Your task to perform on an android device: choose inbox layout in the gmail app Image 0: 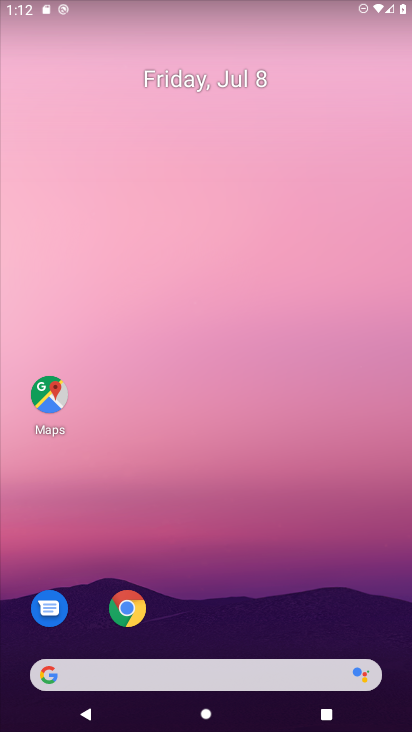
Step 0: drag from (309, 605) to (259, 305)
Your task to perform on an android device: choose inbox layout in the gmail app Image 1: 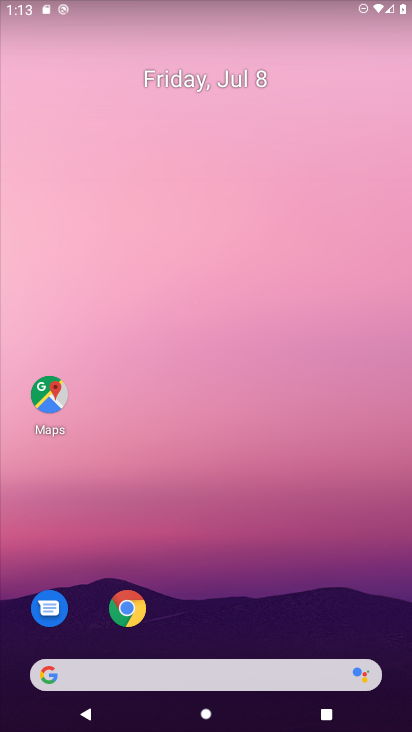
Step 1: drag from (258, 573) to (207, 290)
Your task to perform on an android device: choose inbox layout in the gmail app Image 2: 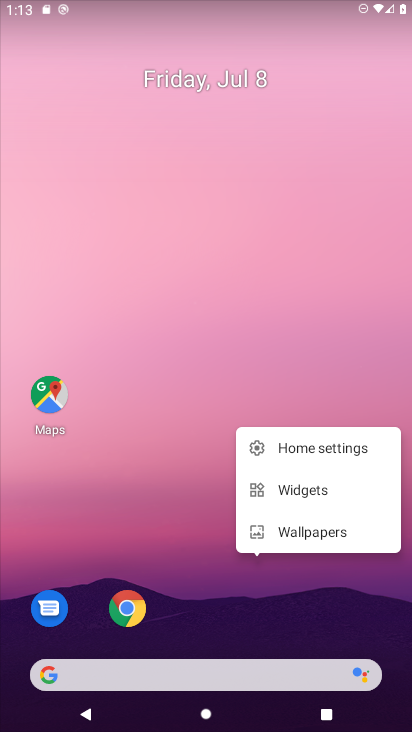
Step 2: click (189, 415)
Your task to perform on an android device: choose inbox layout in the gmail app Image 3: 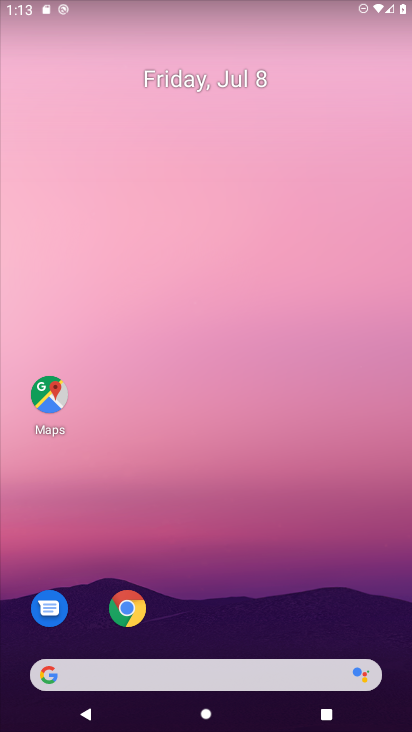
Step 3: drag from (279, 611) to (226, 152)
Your task to perform on an android device: choose inbox layout in the gmail app Image 4: 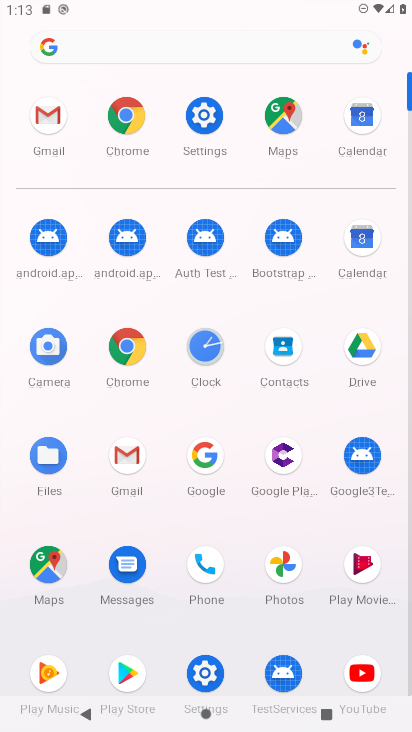
Step 4: click (60, 143)
Your task to perform on an android device: choose inbox layout in the gmail app Image 5: 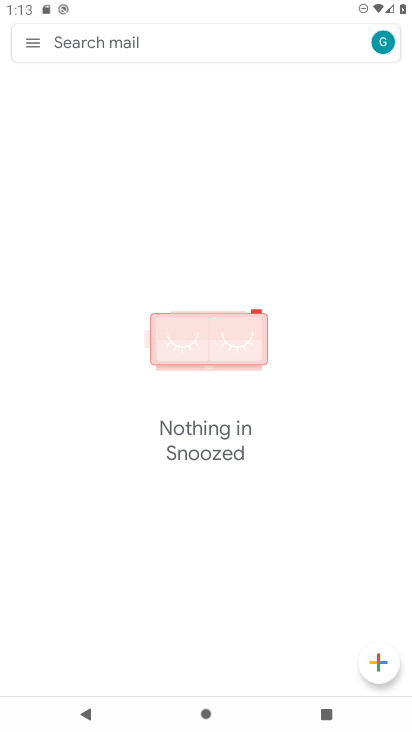
Step 5: click (34, 37)
Your task to perform on an android device: choose inbox layout in the gmail app Image 6: 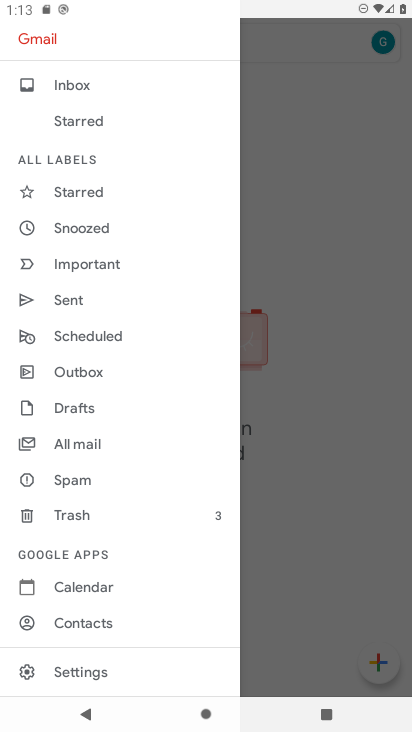
Step 6: click (64, 675)
Your task to perform on an android device: choose inbox layout in the gmail app Image 7: 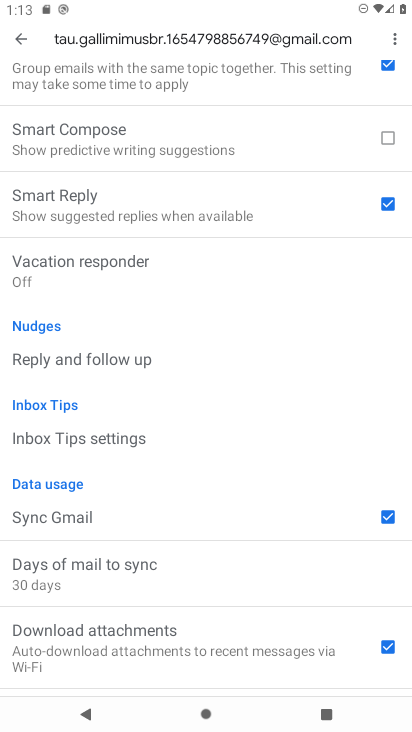
Step 7: drag from (147, 156) to (144, 61)
Your task to perform on an android device: choose inbox layout in the gmail app Image 8: 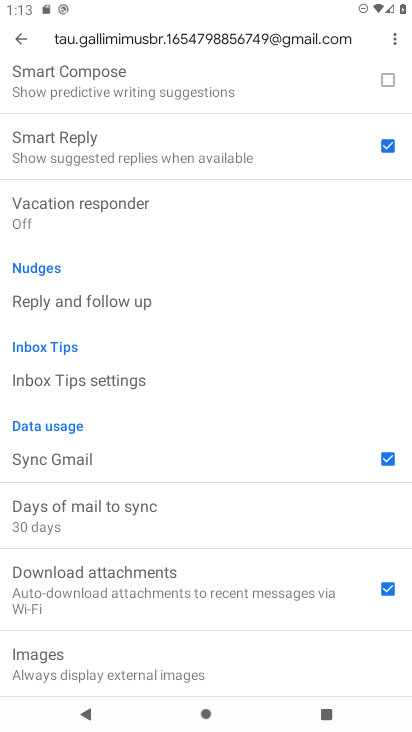
Step 8: drag from (130, 517) to (181, 234)
Your task to perform on an android device: choose inbox layout in the gmail app Image 9: 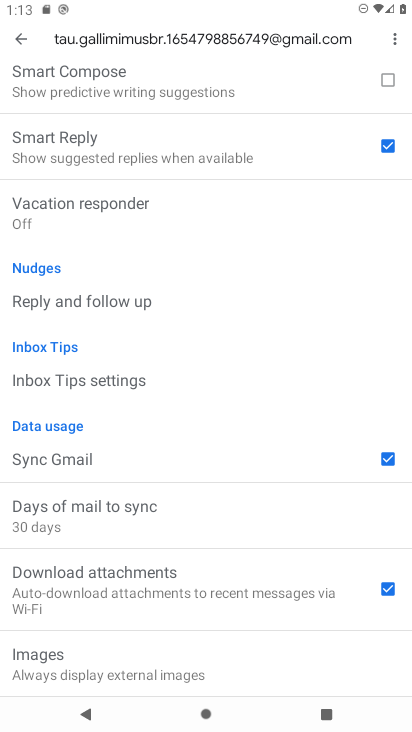
Step 9: drag from (181, 234) to (218, 708)
Your task to perform on an android device: choose inbox layout in the gmail app Image 10: 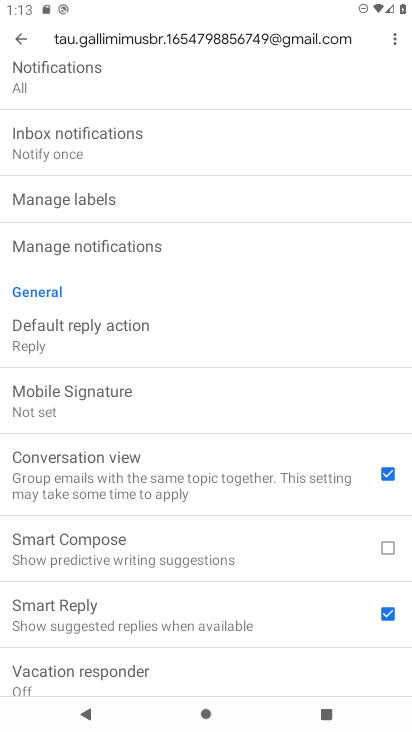
Step 10: drag from (229, 307) to (245, 622)
Your task to perform on an android device: choose inbox layout in the gmail app Image 11: 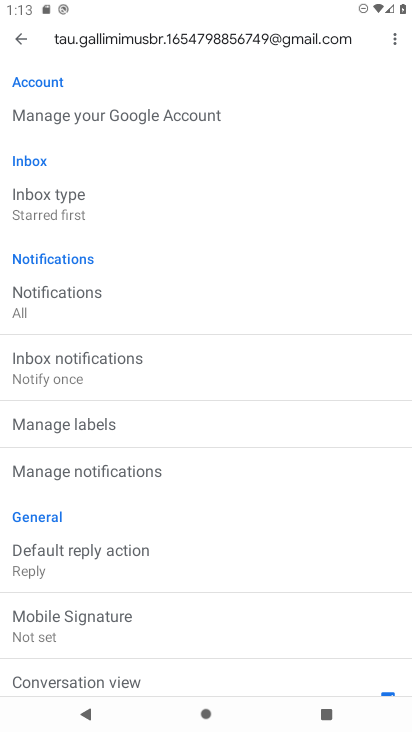
Step 11: click (170, 203)
Your task to perform on an android device: choose inbox layout in the gmail app Image 12: 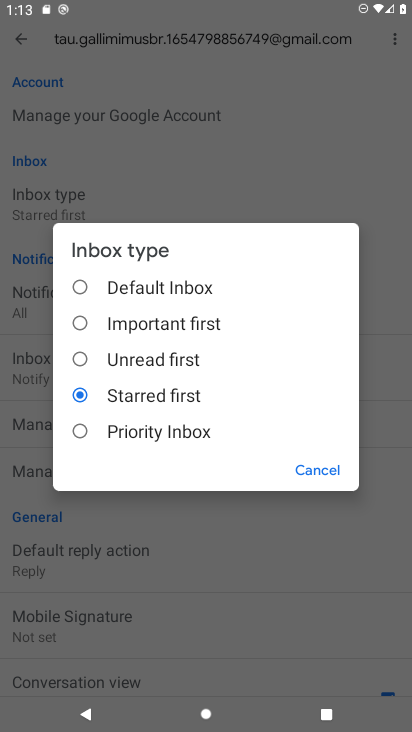
Step 12: click (161, 426)
Your task to perform on an android device: choose inbox layout in the gmail app Image 13: 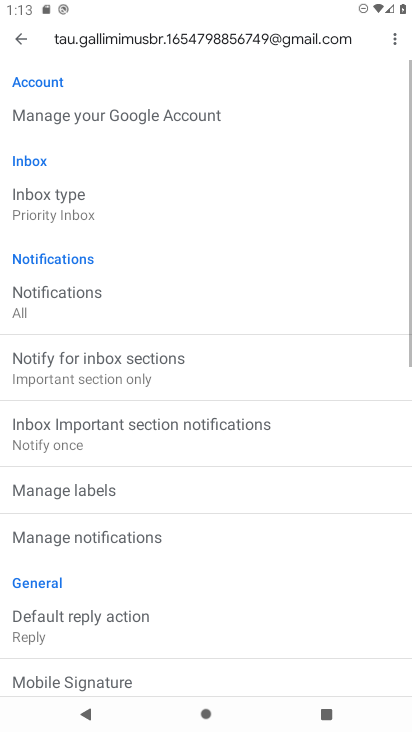
Step 13: task complete